Your task to perform on an android device: Open Chrome and go to the settings page Image 0: 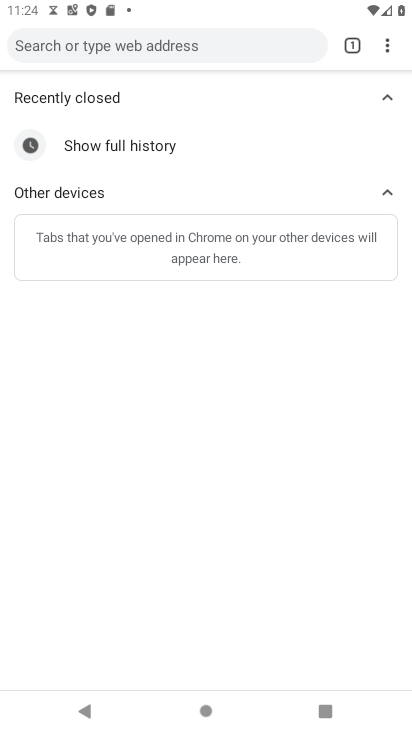
Step 0: press back button
Your task to perform on an android device: Open Chrome and go to the settings page Image 1: 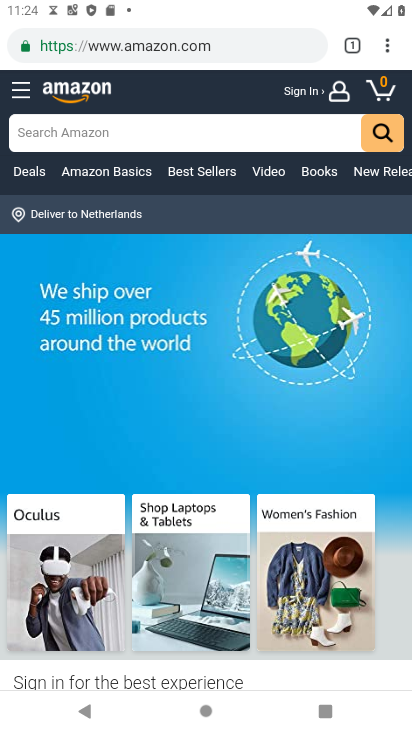
Step 1: drag from (384, 43) to (224, 546)
Your task to perform on an android device: Open Chrome and go to the settings page Image 2: 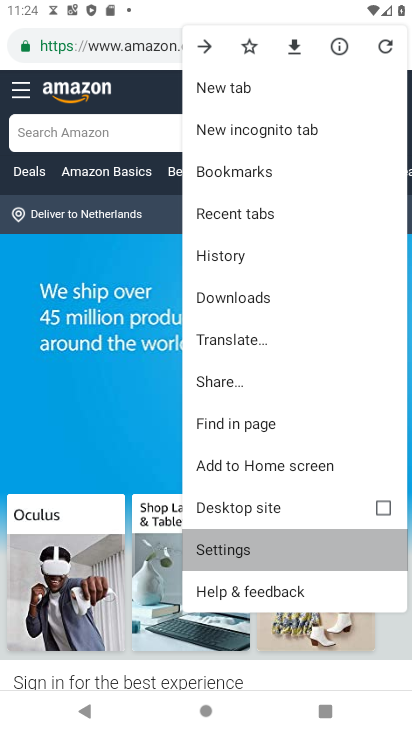
Step 2: click (241, 535)
Your task to perform on an android device: Open Chrome and go to the settings page Image 3: 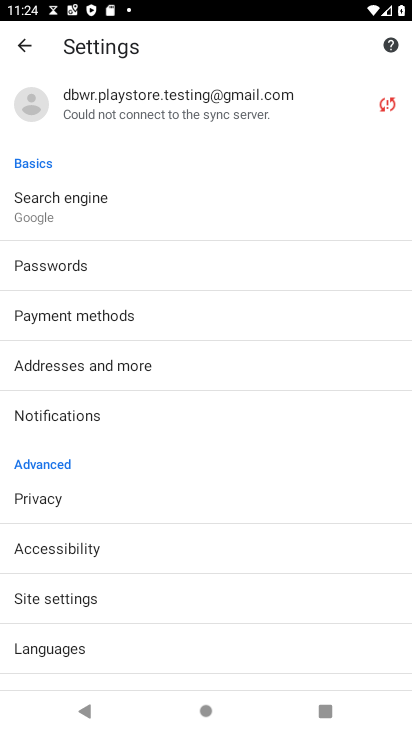
Step 3: task complete